Your task to perform on an android device: toggle wifi Image 0: 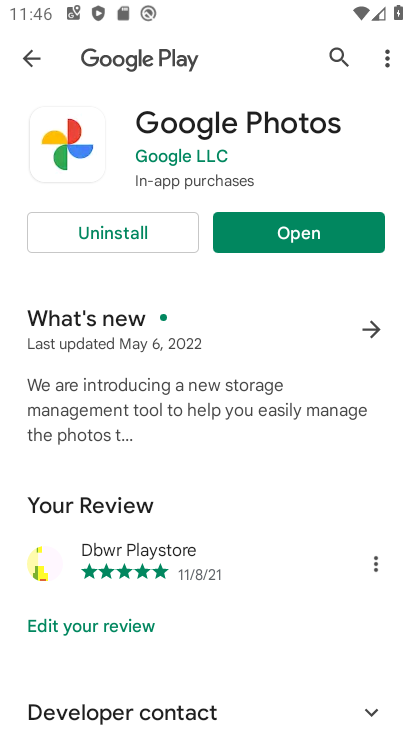
Step 0: press home button
Your task to perform on an android device: toggle wifi Image 1: 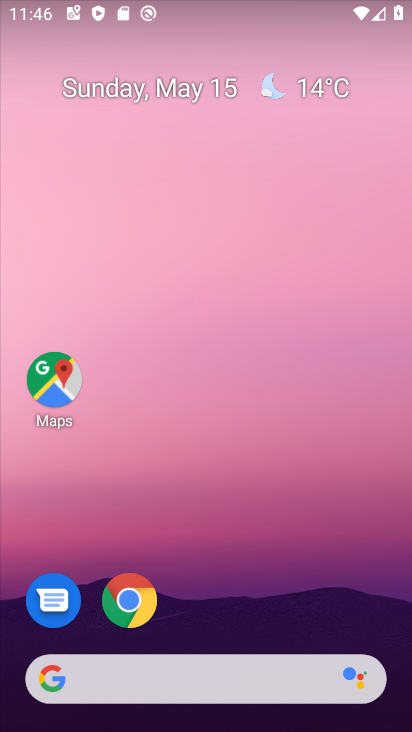
Step 1: drag from (396, 644) to (298, 162)
Your task to perform on an android device: toggle wifi Image 2: 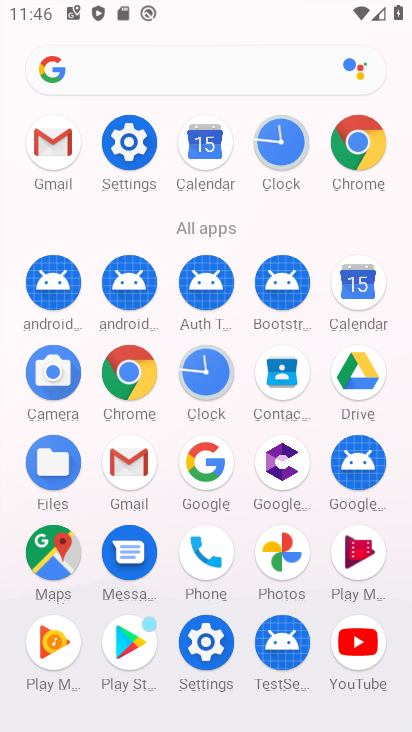
Step 2: click (204, 641)
Your task to perform on an android device: toggle wifi Image 3: 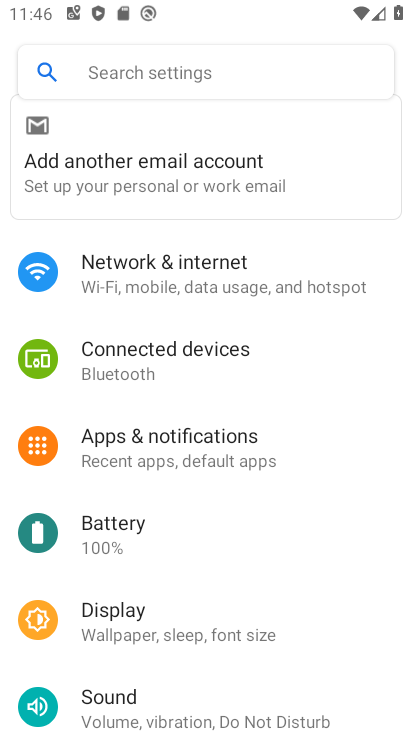
Step 3: click (121, 268)
Your task to perform on an android device: toggle wifi Image 4: 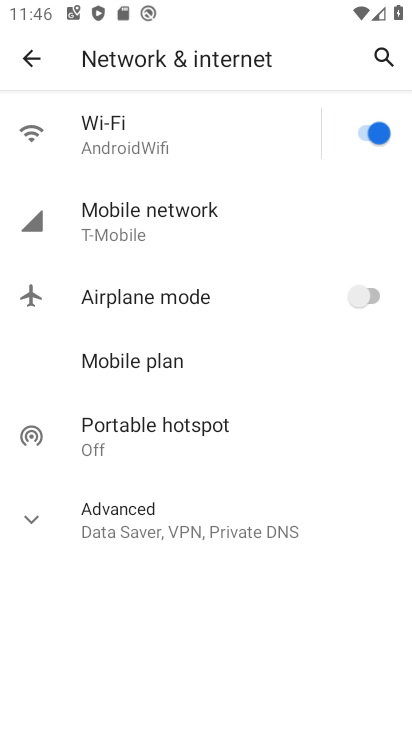
Step 4: click (357, 133)
Your task to perform on an android device: toggle wifi Image 5: 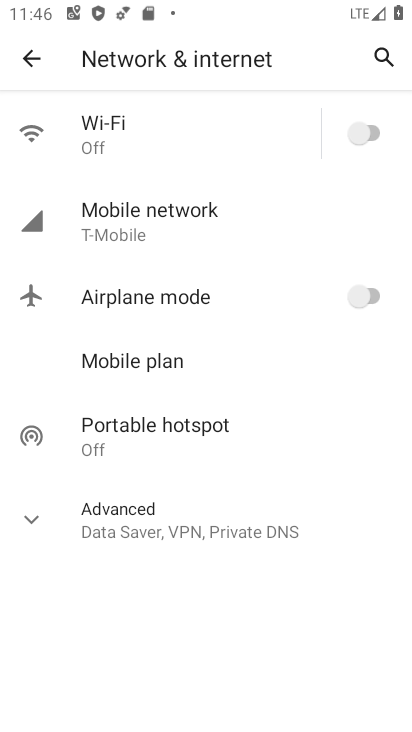
Step 5: task complete